Your task to perform on an android device: Open CNN.com Image 0: 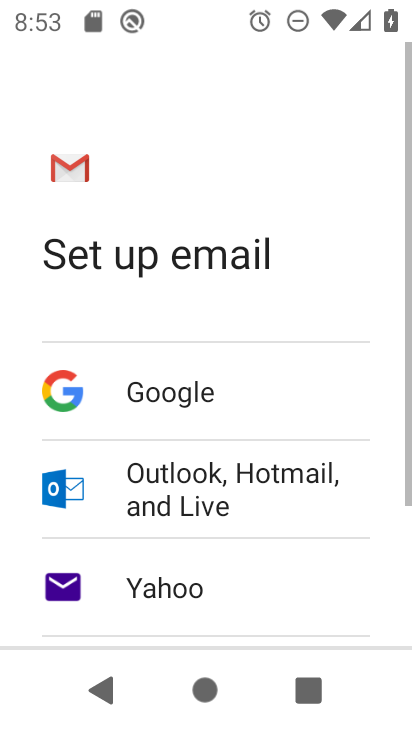
Step 0: press home button
Your task to perform on an android device: Open CNN.com Image 1: 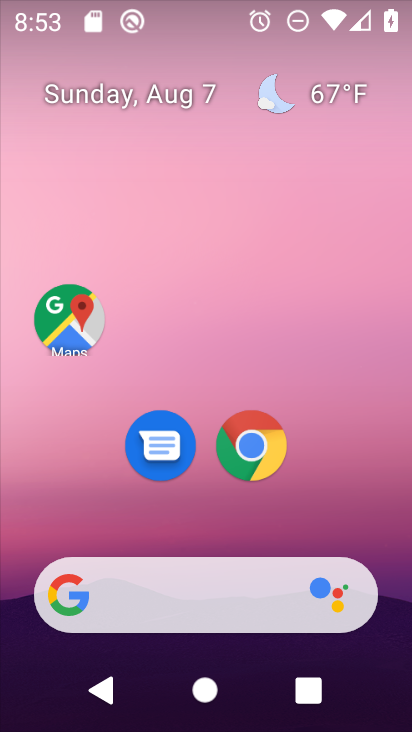
Step 1: drag from (201, 518) to (189, 0)
Your task to perform on an android device: Open CNN.com Image 2: 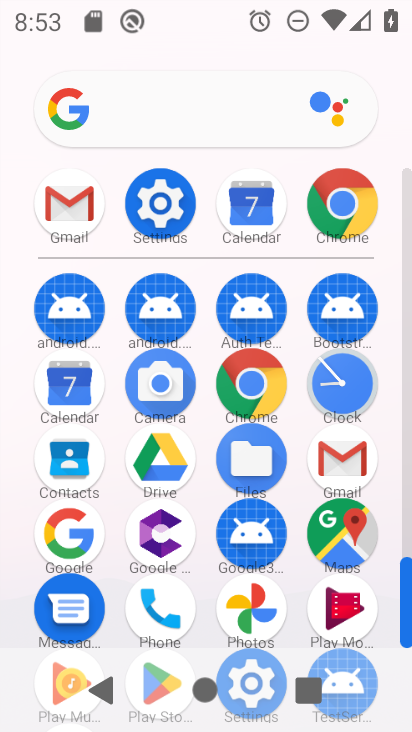
Step 2: click (250, 377)
Your task to perform on an android device: Open CNN.com Image 3: 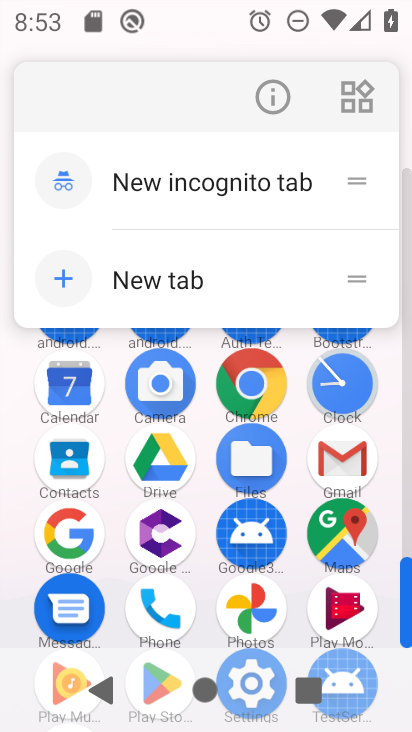
Step 3: click (239, 378)
Your task to perform on an android device: Open CNN.com Image 4: 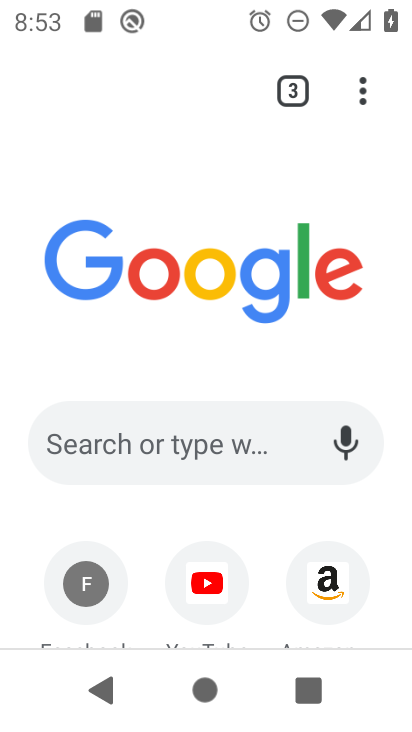
Step 4: click (203, 436)
Your task to perform on an android device: Open CNN.com Image 5: 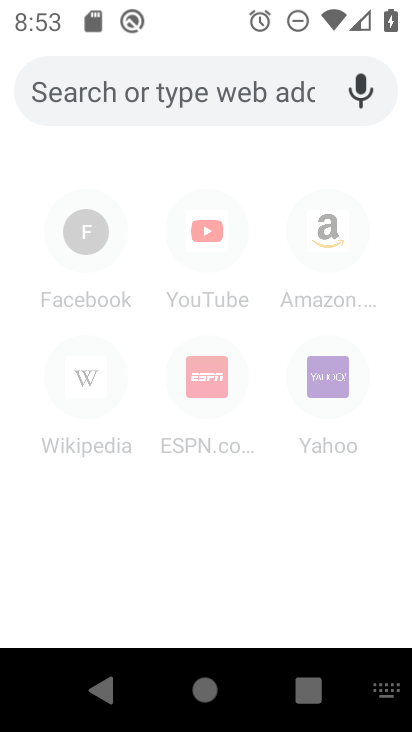
Step 5: type "cnn.com"
Your task to perform on an android device: Open CNN.com Image 6: 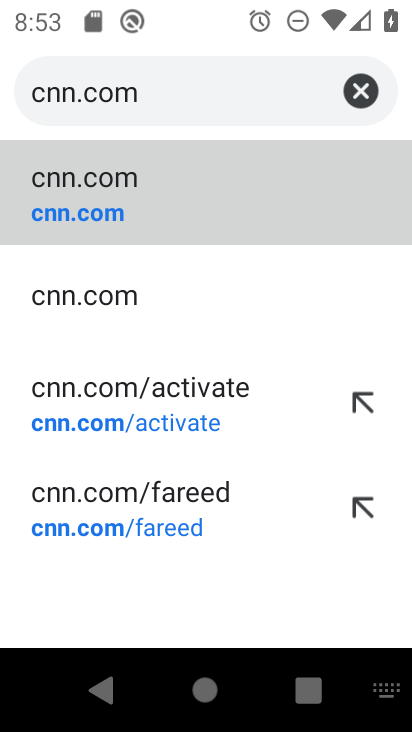
Step 6: click (94, 188)
Your task to perform on an android device: Open CNN.com Image 7: 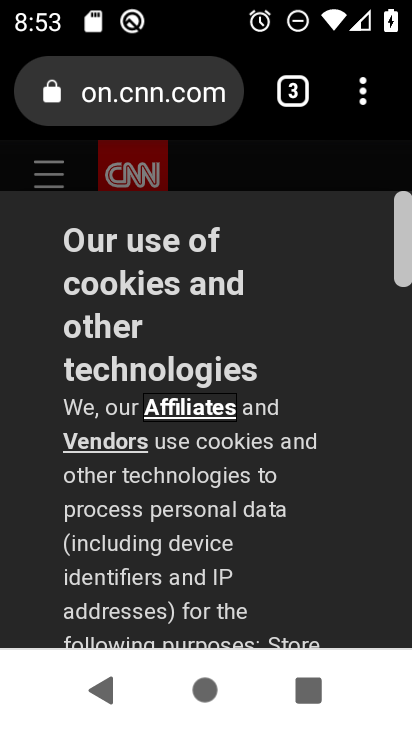
Step 7: drag from (259, 615) to (275, 194)
Your task to perform on an android device: Open CNN.com Image 8: 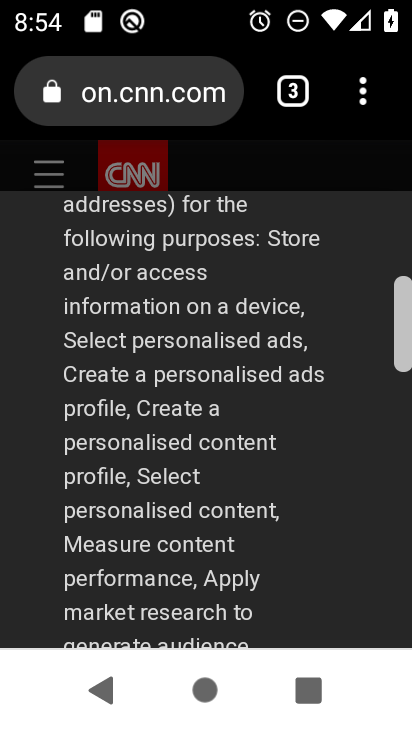
Step 8: drag from (271, 609) to (282, 179)
Your task to perform on an android device: Open CNN.com Image 9: 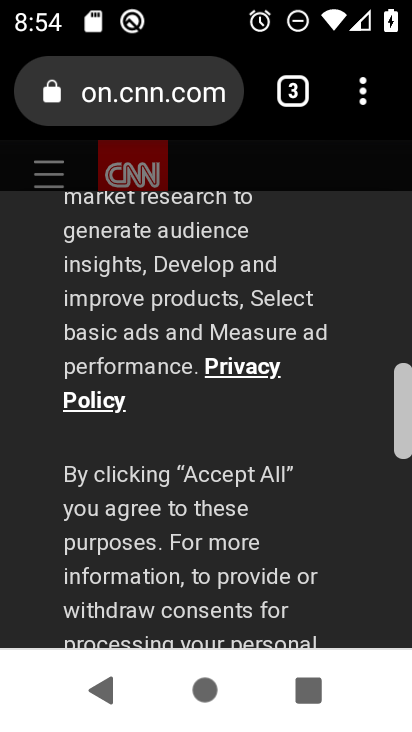
Step 9: drag from (241, 594) to (268, 286)
Your task to perform on an android device: Open CNN.com Image 10: 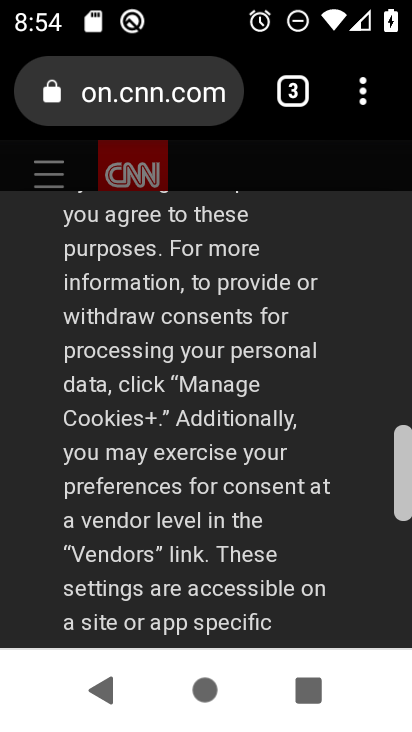
Step 10: drag from (243, 575) to (248, 207)
Your task to perform on an android device: Open CNN.com Image 11: 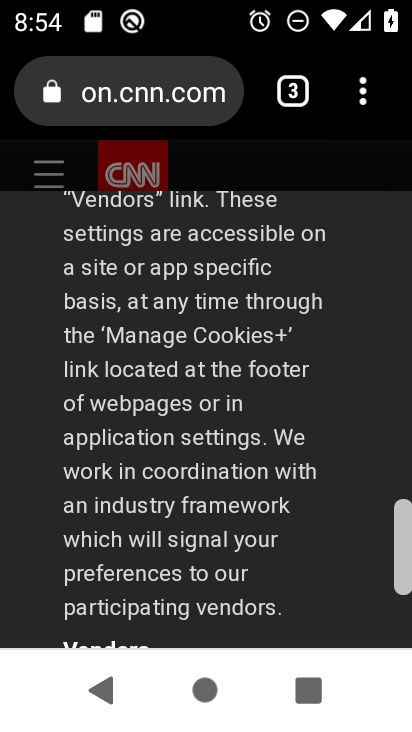
Step 11: drag from (270, 566) to (279, 206)
Your task to perform on an android device: Open CNN.com Image 12: 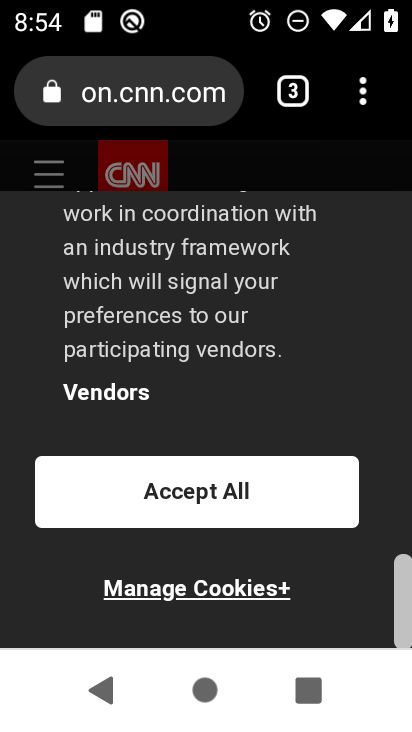
Step 12: click (201, 489)
Your task to perform on an android device: Open CNN.com Image 13: 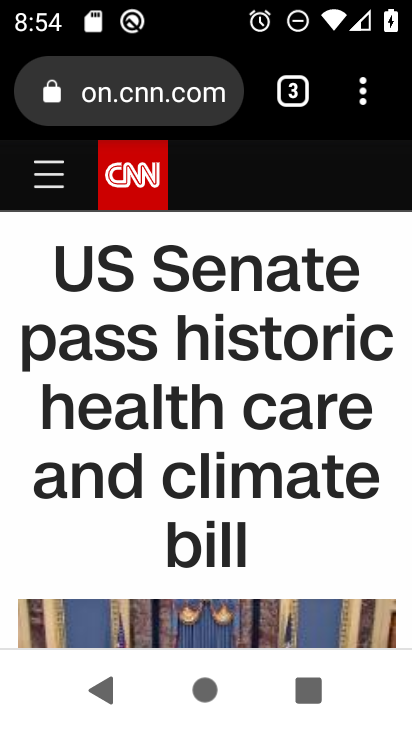
Step 13: task complete